Your task to perform on an android device: Show me popular videos on Youtube Image 0: 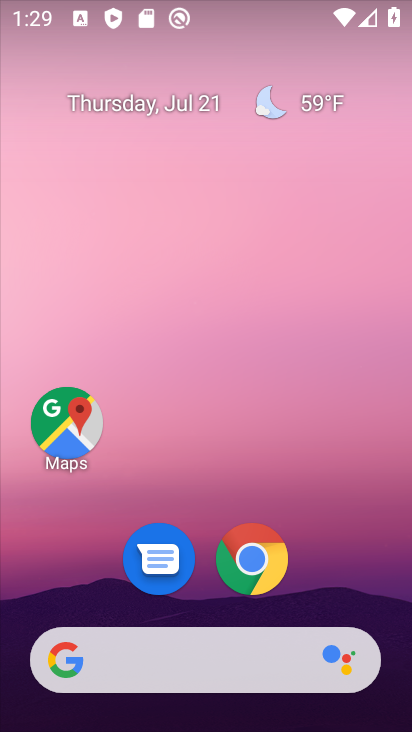
Step 0: drag from (223, 689) to (277, 72)
Your task to perform on an android device: Show me popular videos on Youtube Image 1: 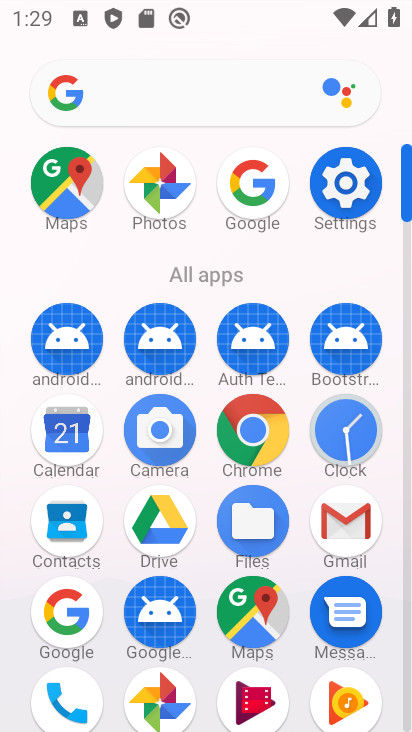
Step 1: drag from (257, 457) to (261, 0)
Your task to perform on an android device: Show me popular videos on Youtube Image 2: 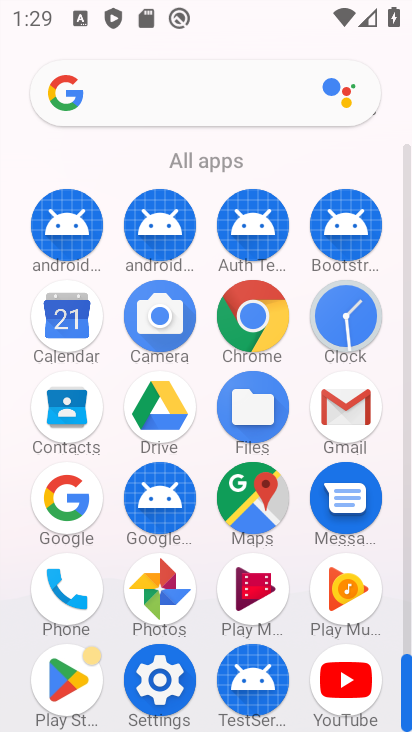
Step 2: click (355, 664)
Your task to perform on an android device: Show me popular videos on Youtube Image 3: 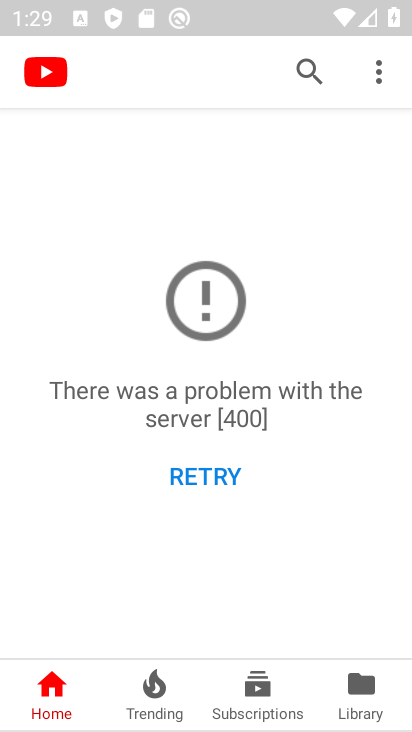
Step 3: task complete